Your task to perform on an android device: install app "Adobe Express: Graphic Design" Image 0: 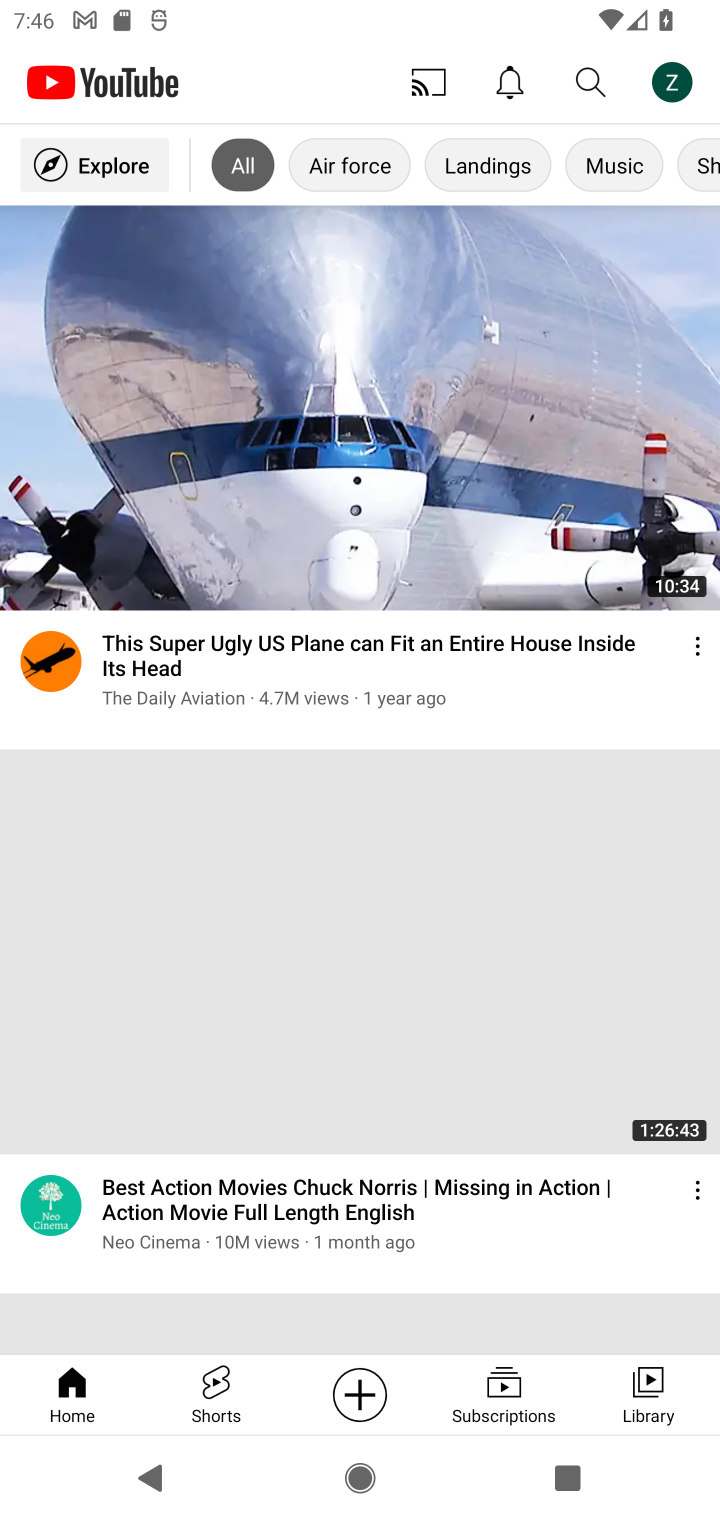
Step 0: press home button
Your task to perform on an android device: install app "Adobe Express: Graphic Design" Image 1: 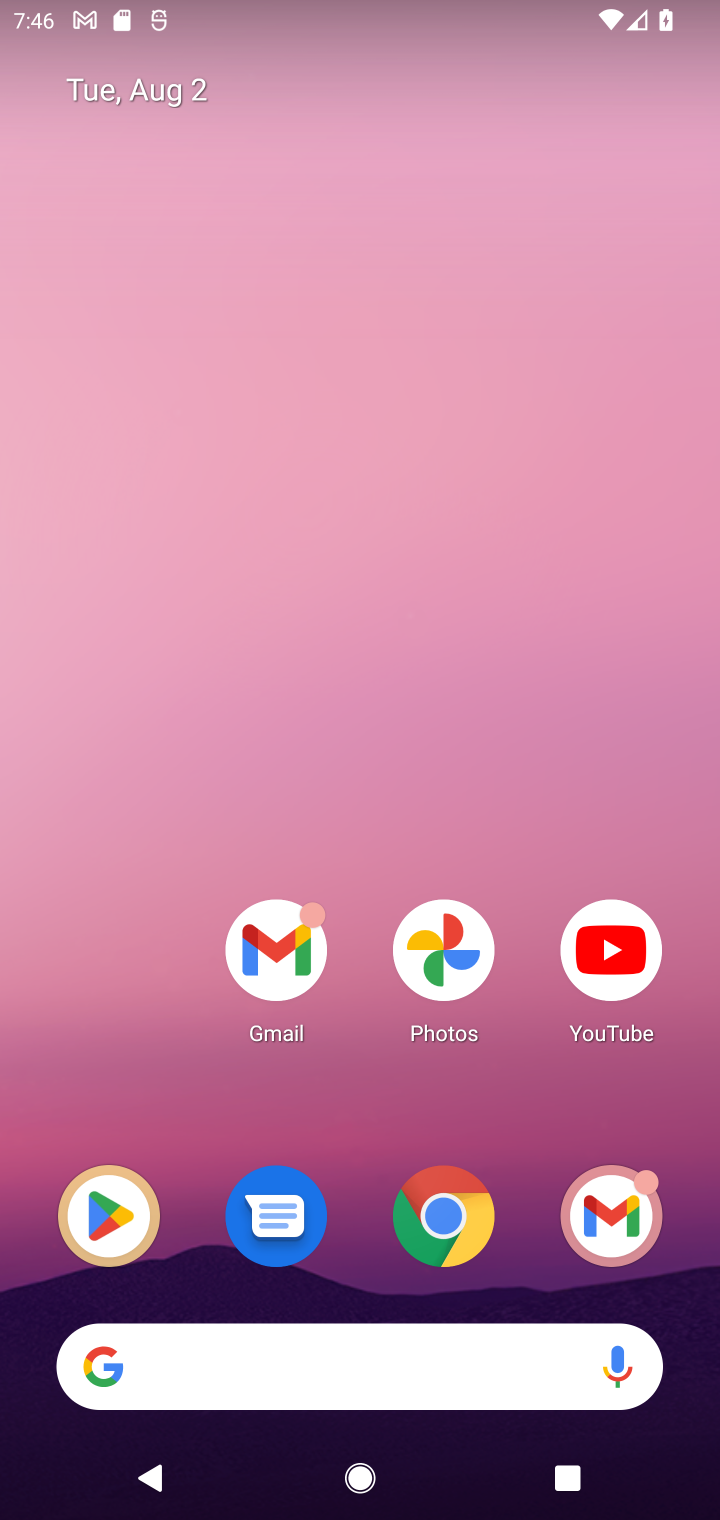
Step 1: click (116, 1219)
Your task to perform on an android device: install app "Adobe Express: Graphic Design" Image 2: 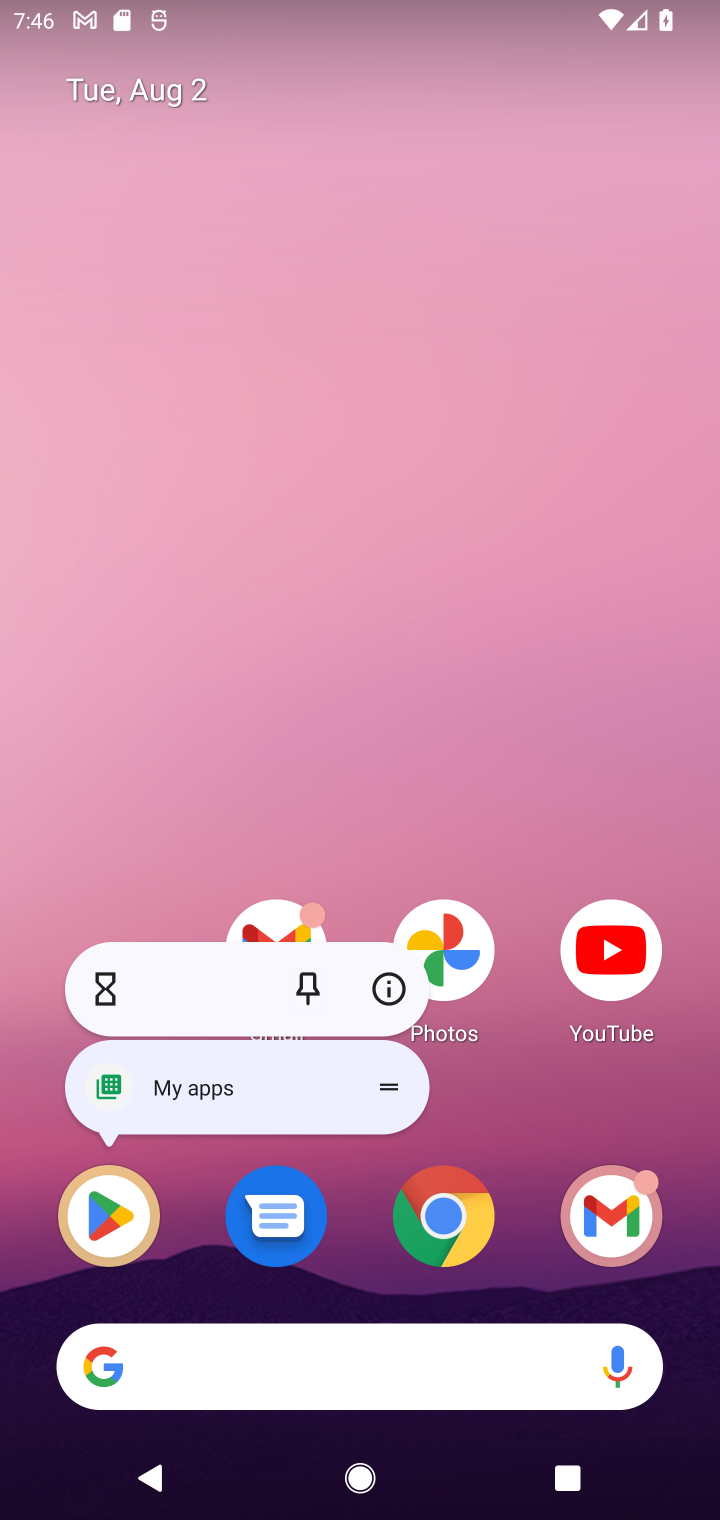
Step 2: click (108, 1210)
Your task to perform on an android device: install app "Adobe Express: Graphic Design" Image 3: 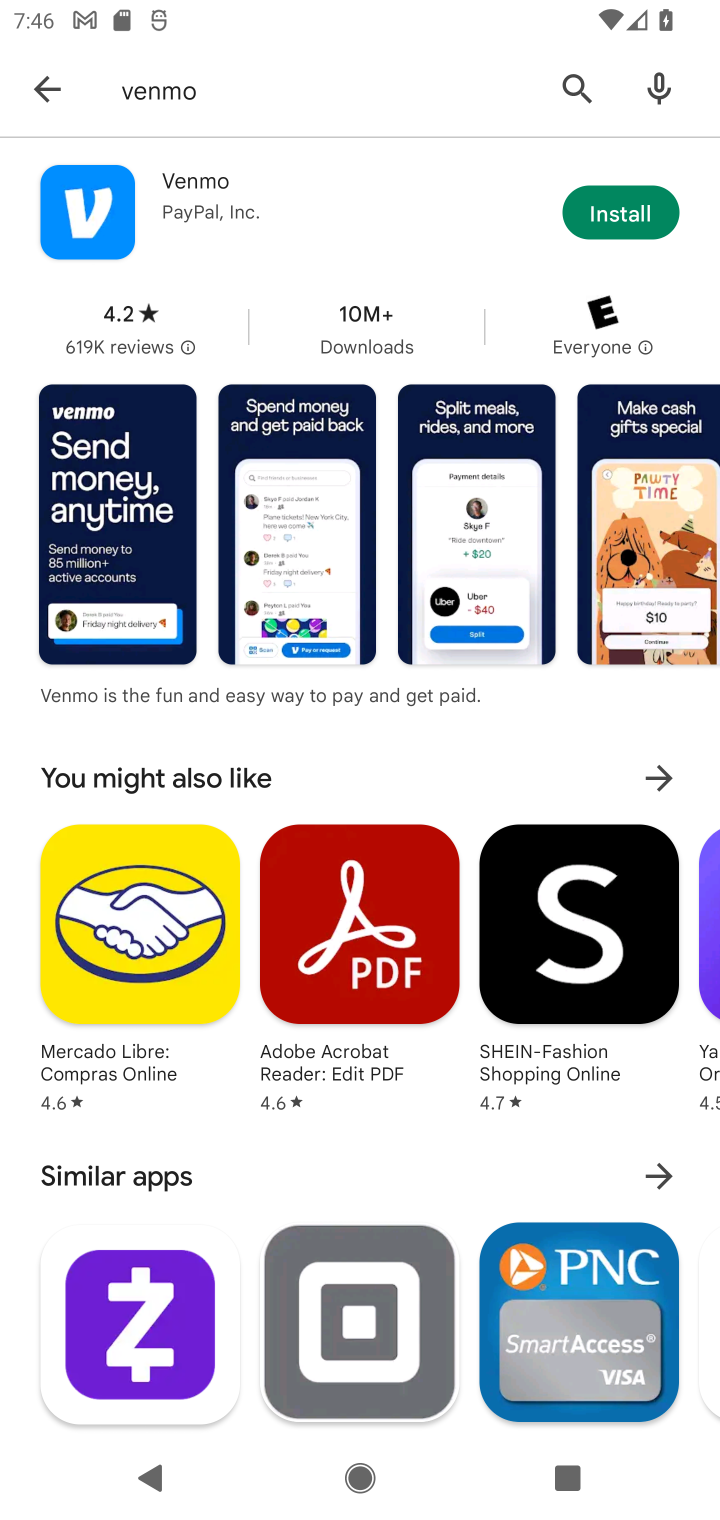
Step 3: click (582, 75)
Your task to perform on an android device: install app "Adobe Express: Graphic Design" Image 4: 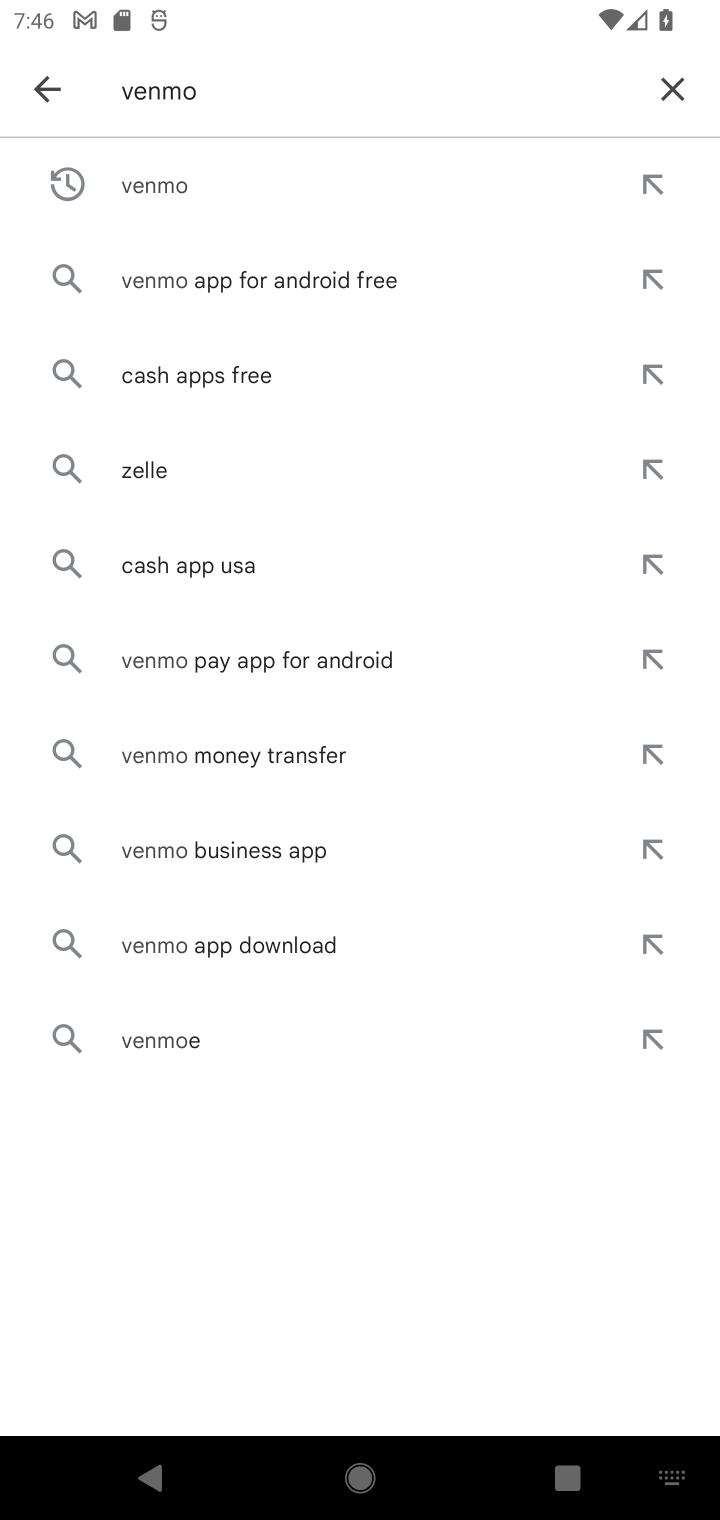
Step 4: click (663, 79)
Your task to perform on an android device: install app "Adobe Express: Graphic Design" Image 5: 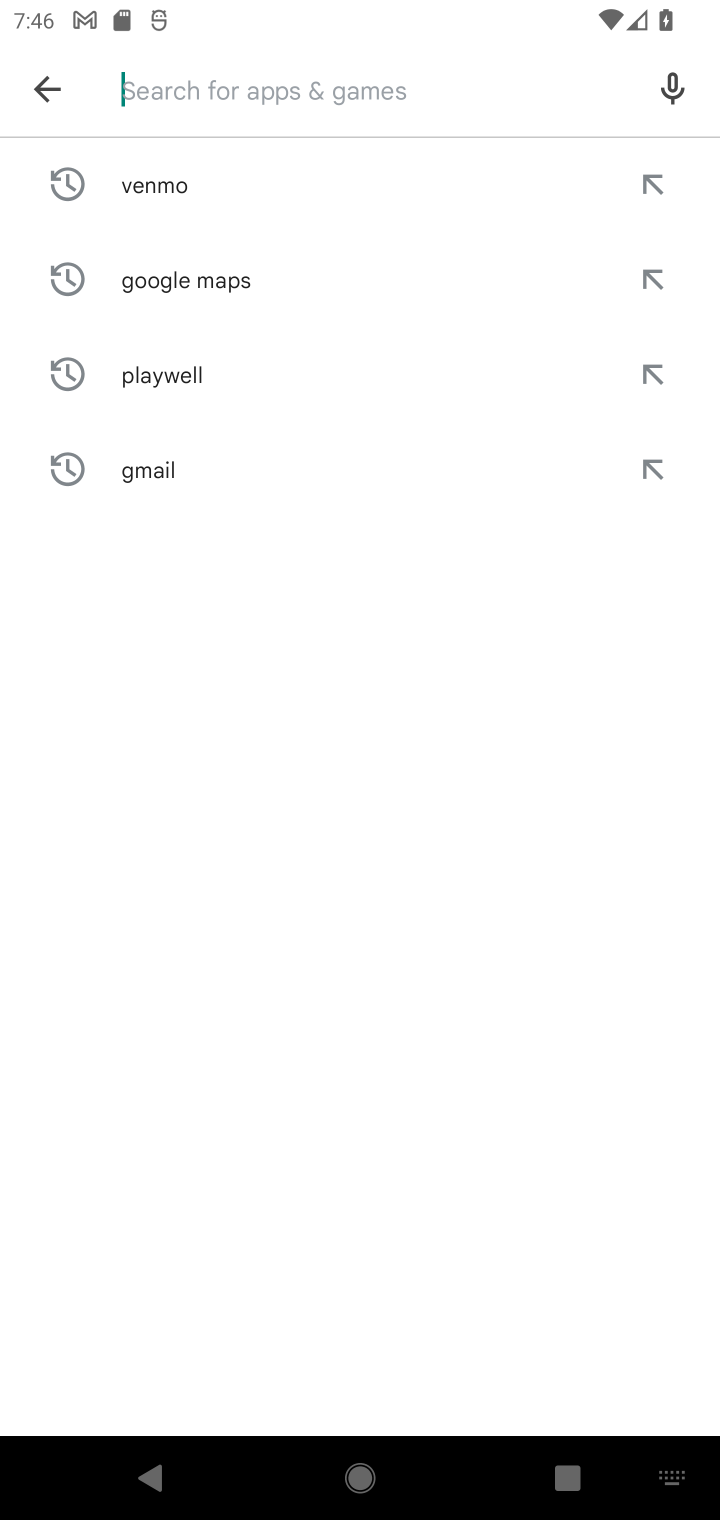
Step 5: type "Adobe Express: Graphic Design"
Your task to perform on an android device: install app "Adobe Express: Graphic Design" Image 6: 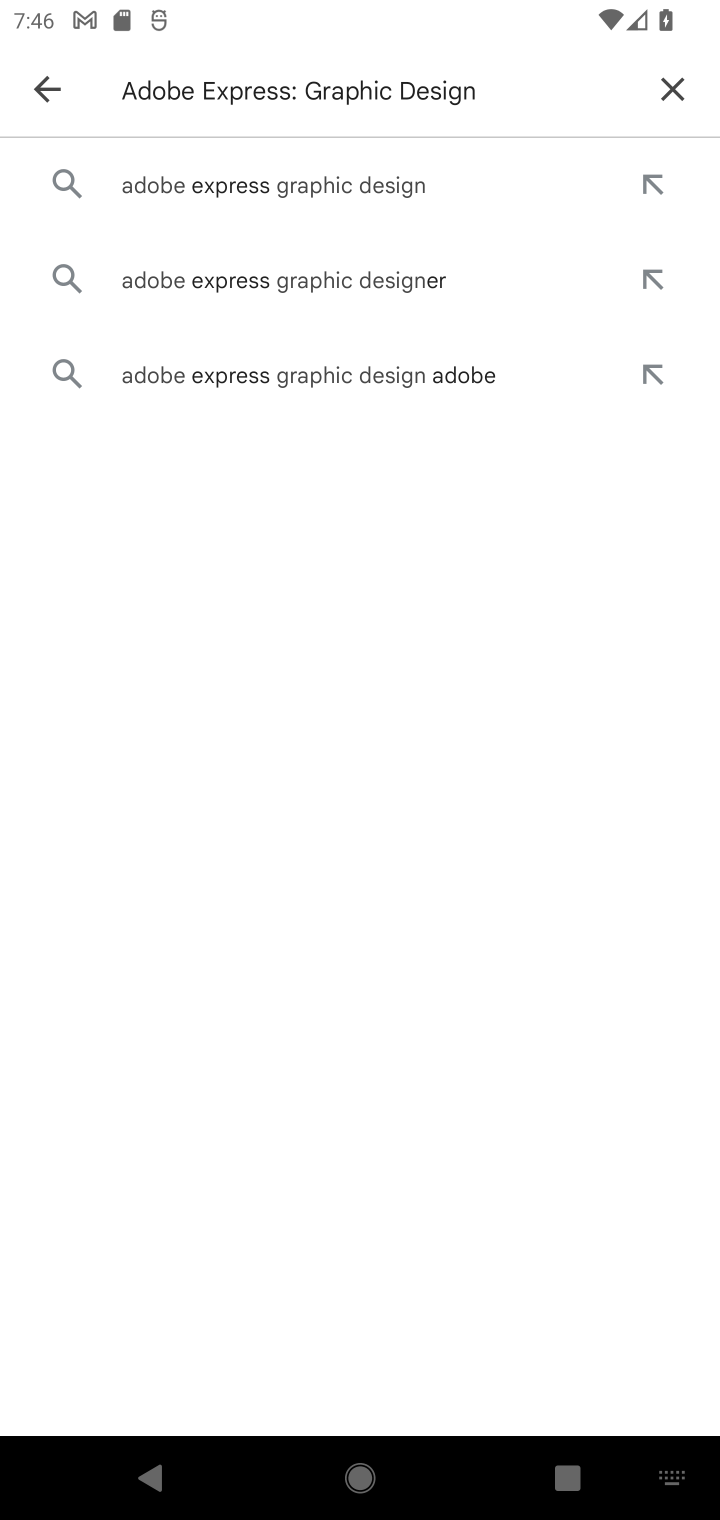
Step 6: click (352, 175)
Your task to perform on an android device: install app "Adobe Express: Graphic Design" Image 7: 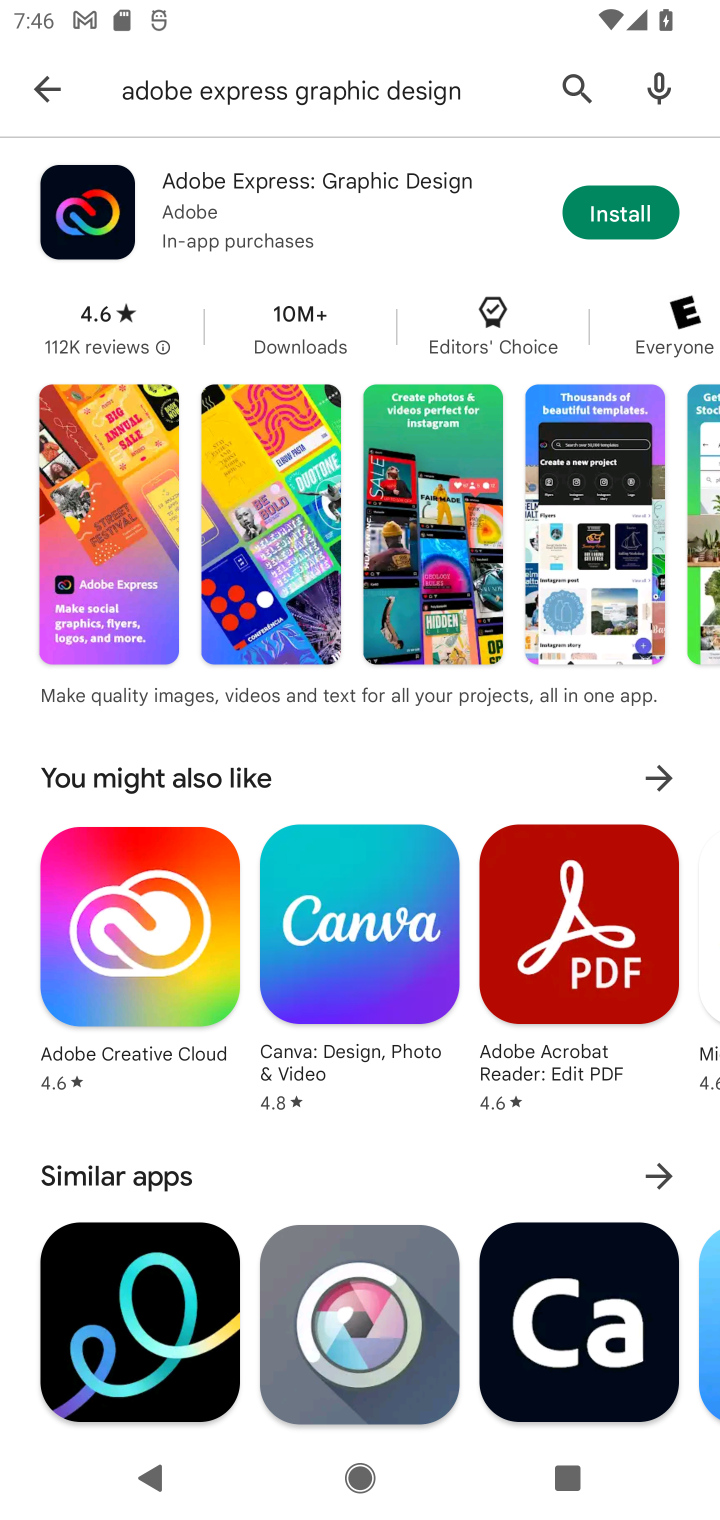
Step 7: click (624, 211)
Your task to perform on an android device: install app "Adobe Express: Graphic Design" Image 8: 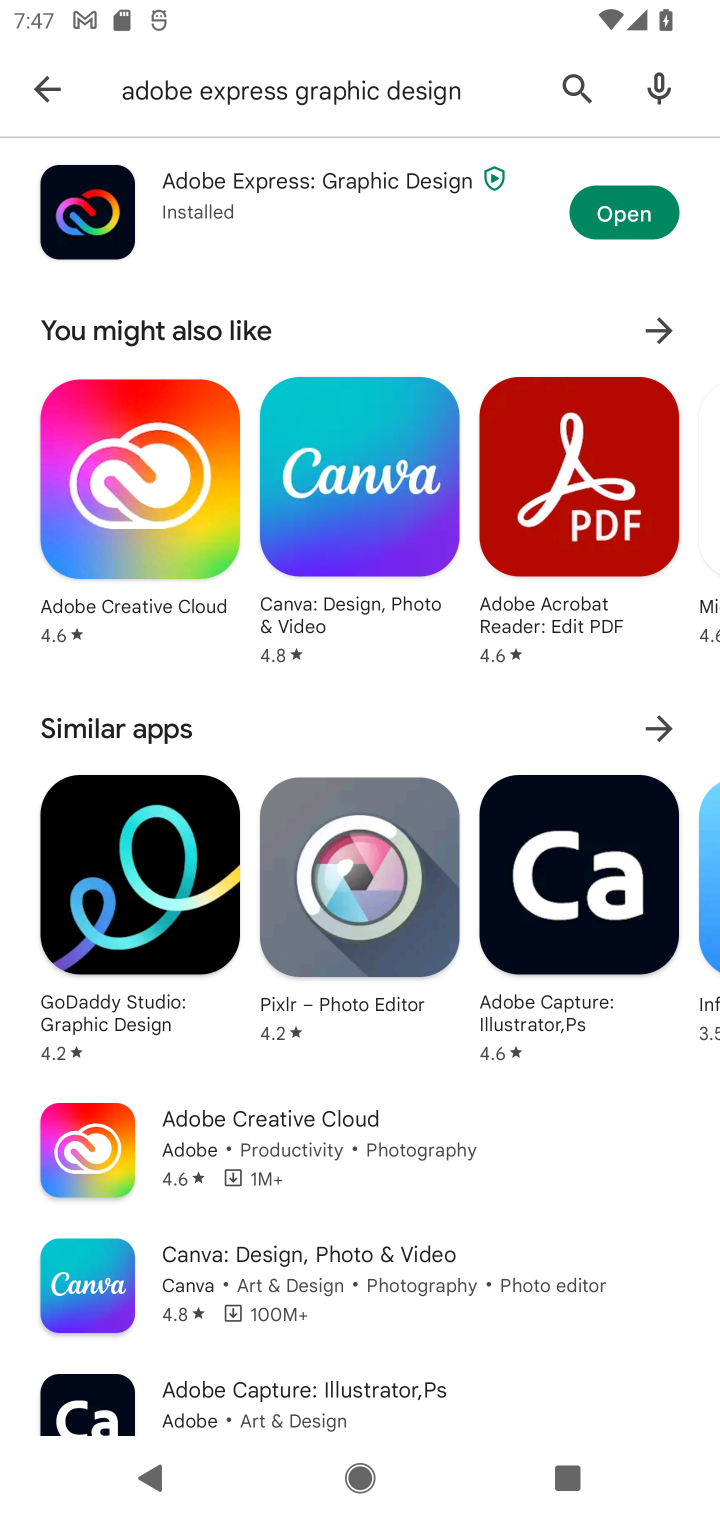
Step 8: task complete